Your task to perform on an android device: Open the stopwatch Image 0: 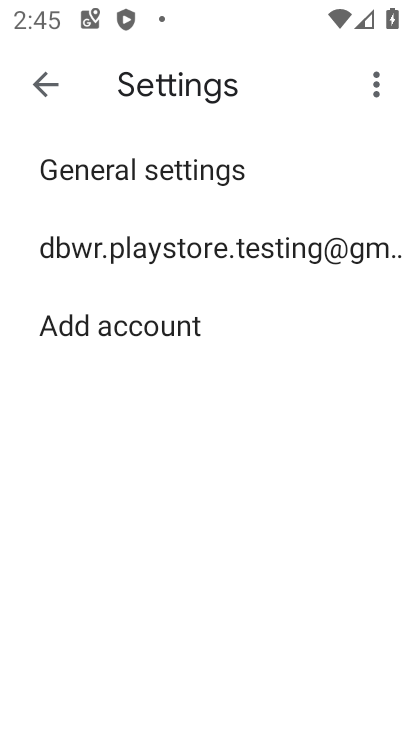
Step 0: press home button
Your task to perform on an android device: Open the stopwatch Image 1: 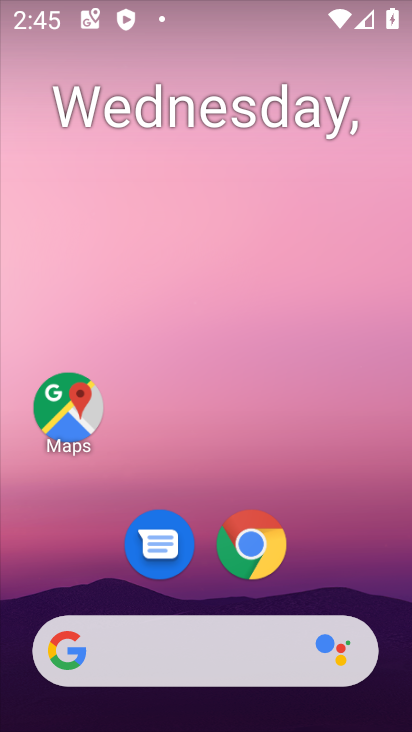
Step 1: drag from (331, 572) to (334, 159)
Your task to perform on an android device: Open the stopwatch Image 2: 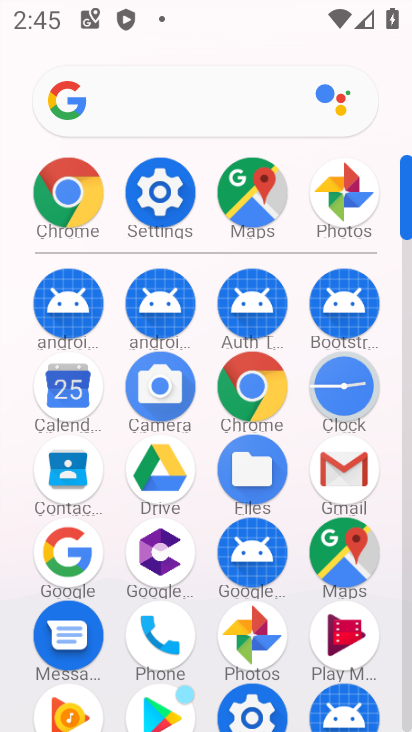
Step 2: click (344, 399)
Your task to perform on an android device: Open the stopwatch Image 3: 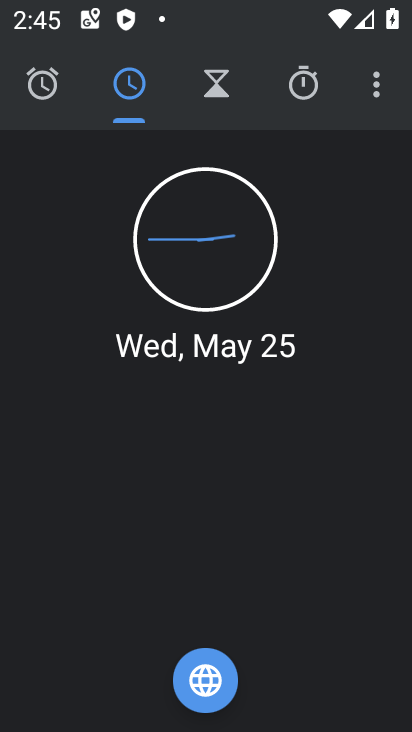
Step 3: click (306, 99)
Your task to perform on an android device: Open the stopwatch Image 4: 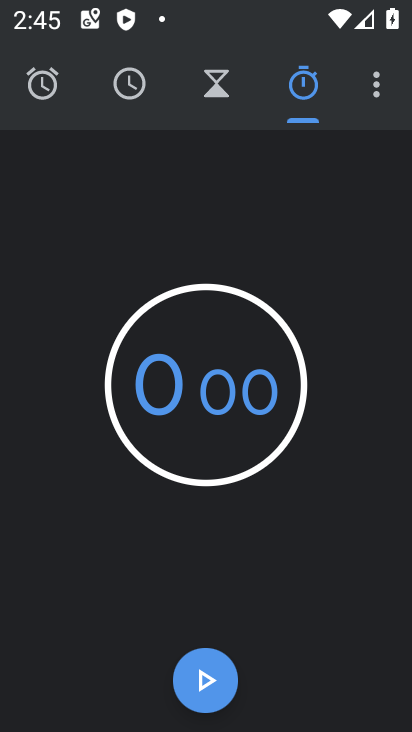
Step 4: task complete